Your task to perform on an android device: turn off javascript in the chrome app Image 0: 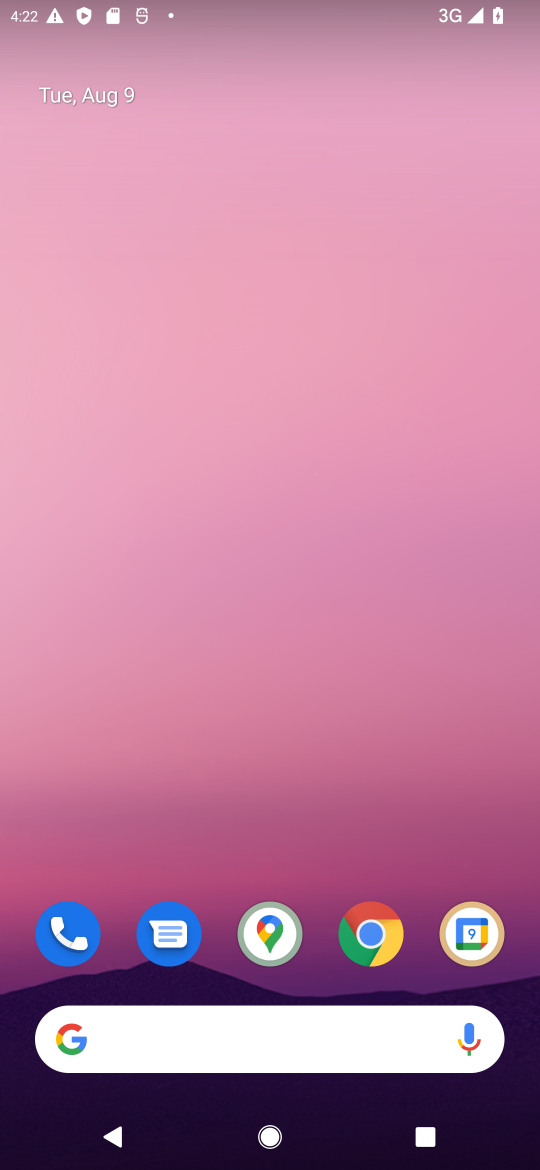
Step 0: click (360, 946)
Your task to perform on an android device: turn off javascript in the chrome app Image 1: 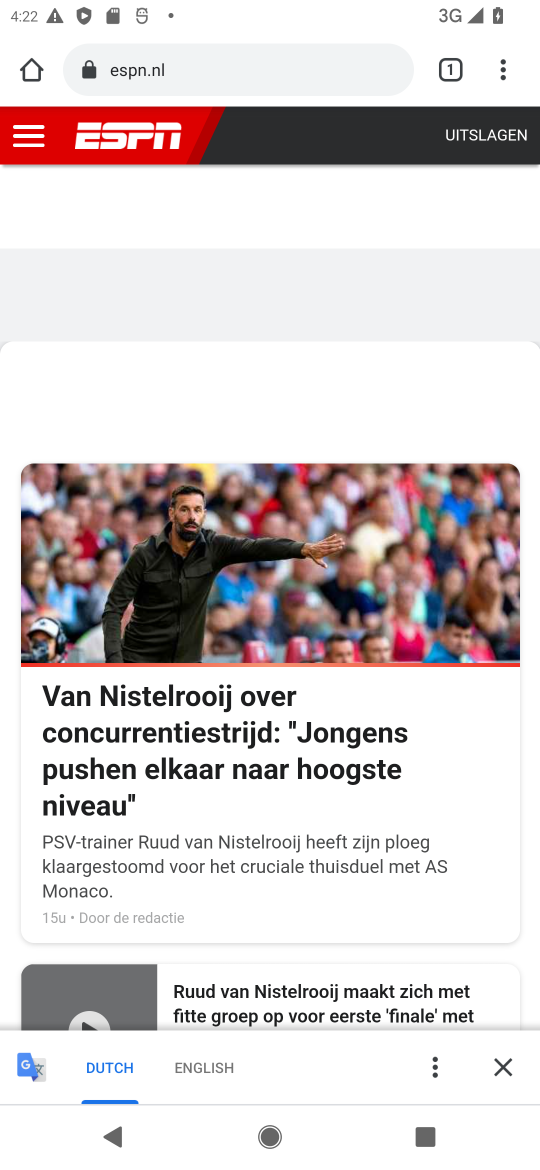
Step 1: click (493, 59)
Your task to perform on an android device: turn off javascript in the chrome app Image 2: 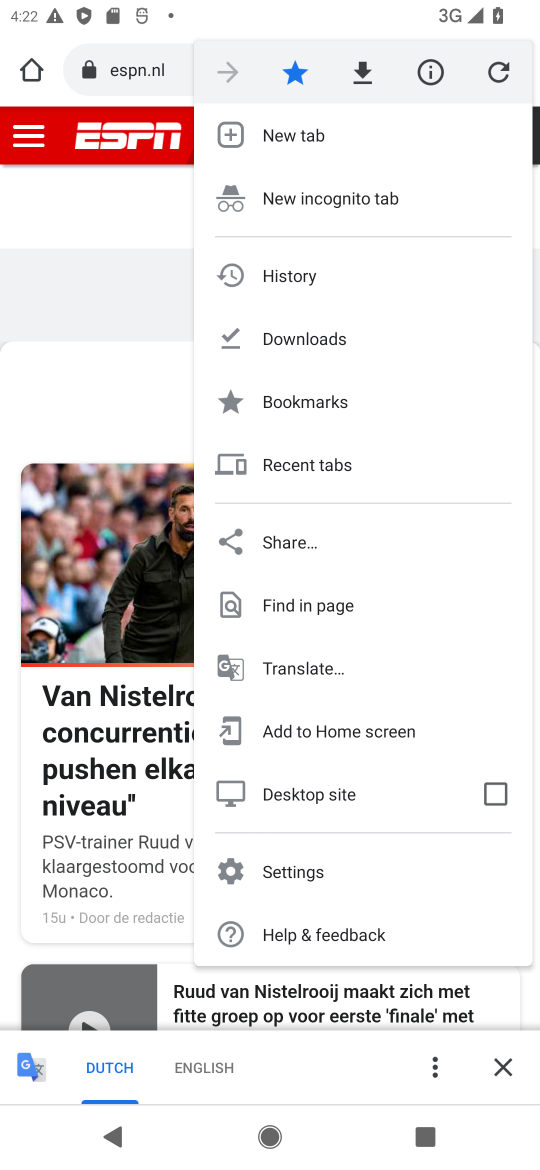
Step 2: click (356, 882)
Your task to perform on an android device: turn off javascript in the chrome app Image 3: 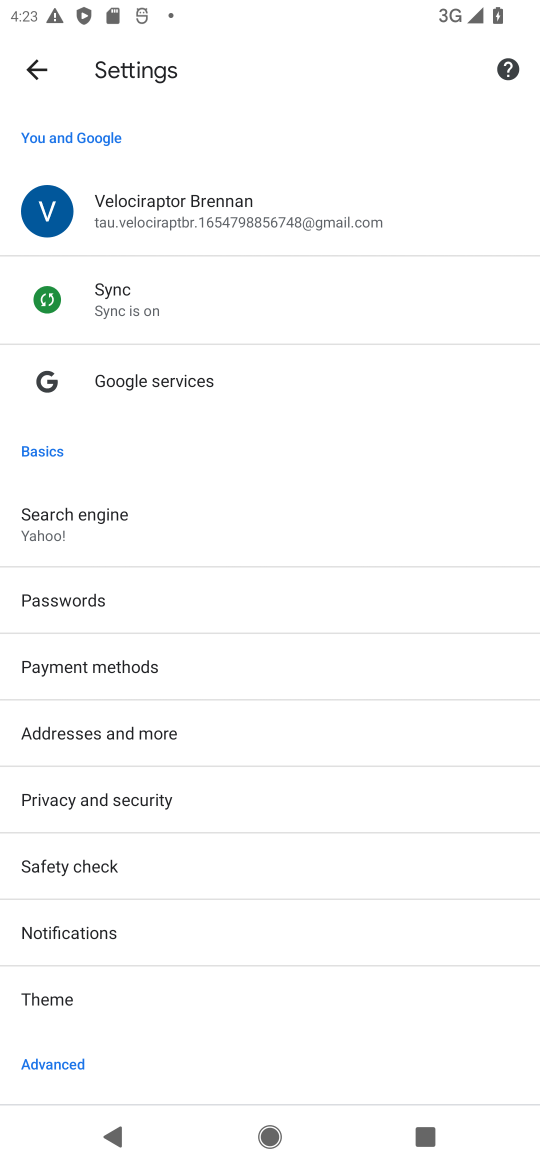
Step 3: drag from (241, 1039) to (276, 758)
Your task to perform on an android device: turn off javascript in the chrome app Image 4: 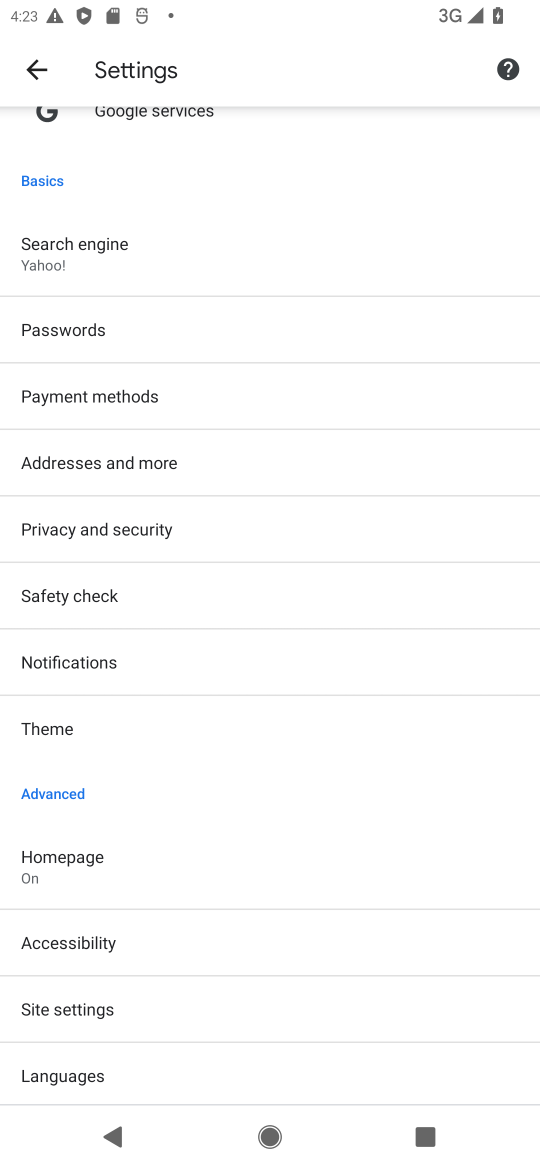
Step 4: click (250, 1002)
Your task to perform on an android device: turn off javascript in the chrome app Image 5: 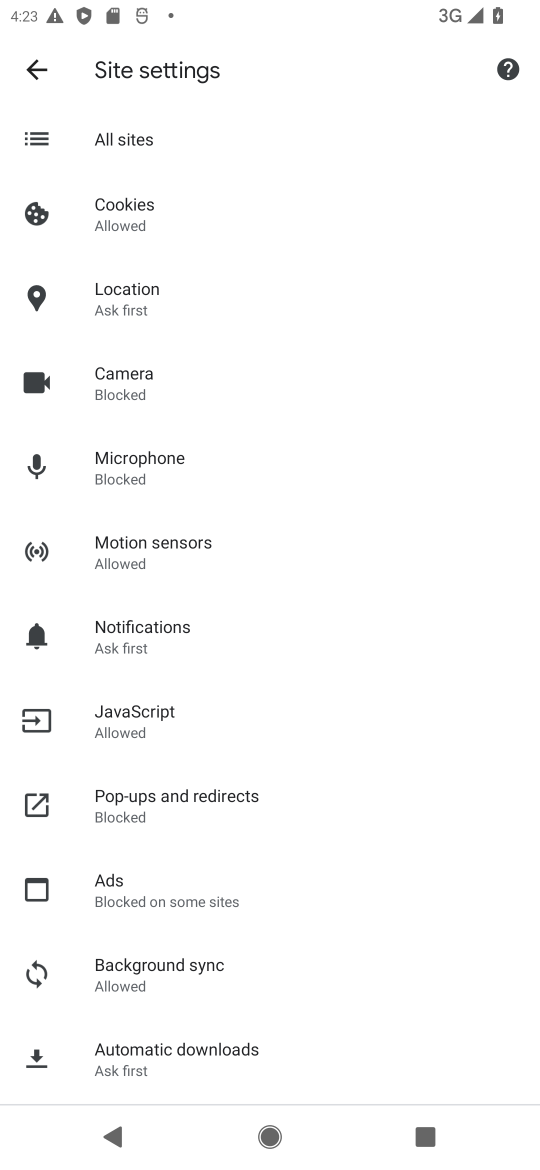
Step 5: click (356, 716)
Your task to perform on an android device: turn off javascript in the chrome app Image 6: 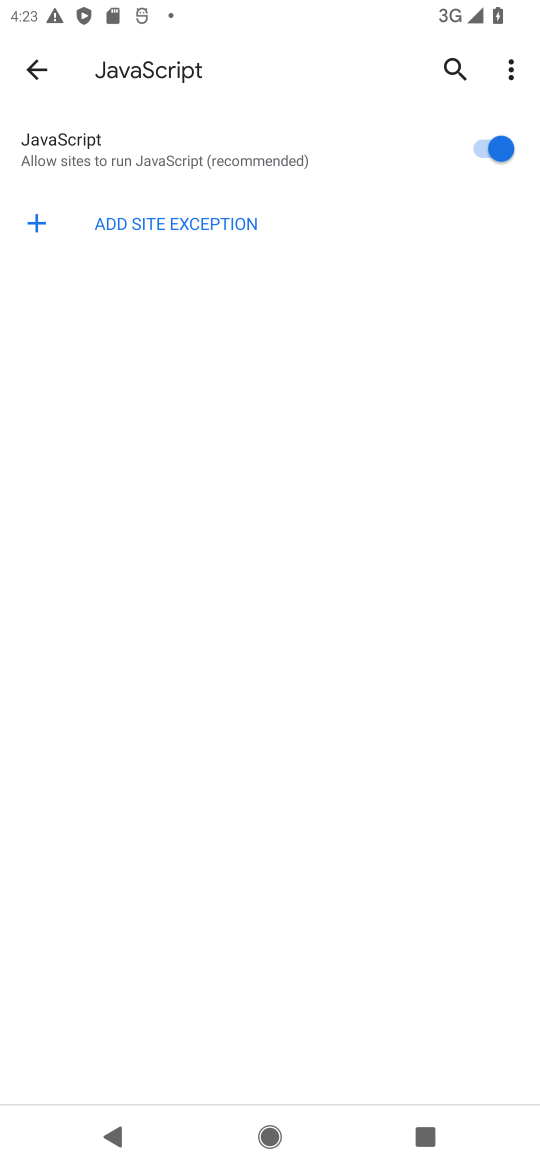
Step 6: click (502, 160)
Your task to perform on an android device: turn off javascript in the chrome app Image 7: 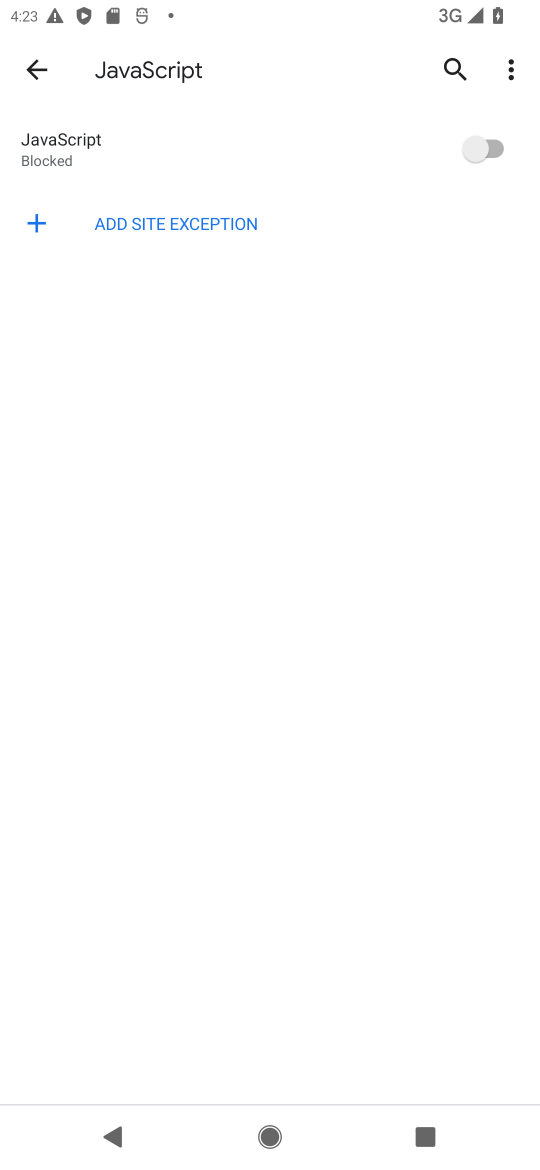
Step 7: task complete